Your task to perform on an android device: open a new tab in the chrome app Image 0: 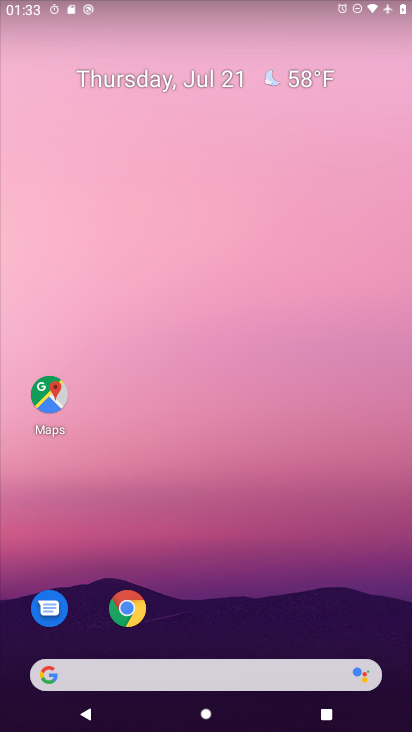
Step 0: press home button
Your task to perform on an android device: open a new tab in the chrome app Image 1: 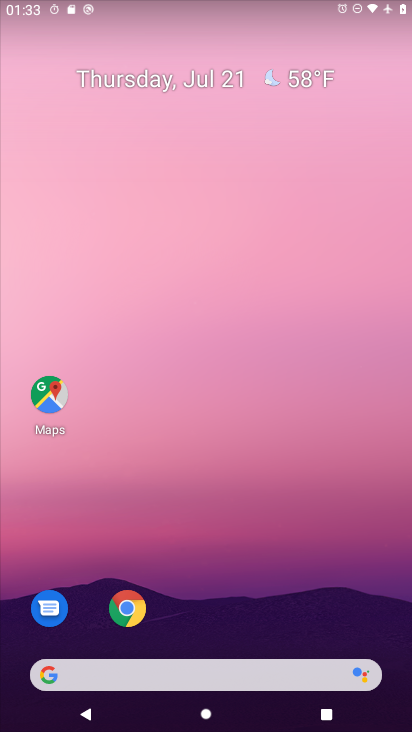
Step 1: drag from (225, 664) to (323, 113)
Your task to perform on an android device: open a new tab in the chrome app Image 2: 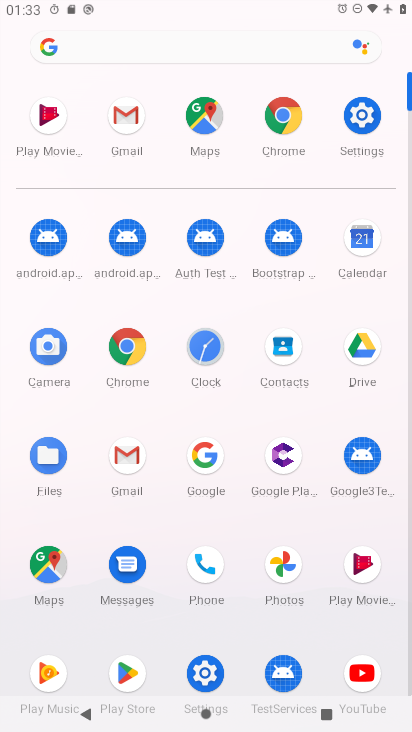
Step 2: click (273, 119)
Your task to perform on an android device: open a new tab in the chrome app Image 3: 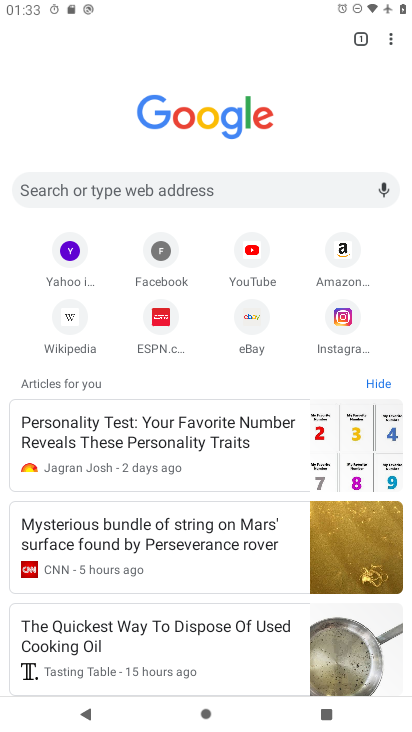
Step 3: click (364, 35)
Your task to perform on an android device: open a new tab in the chrome app Image 4: 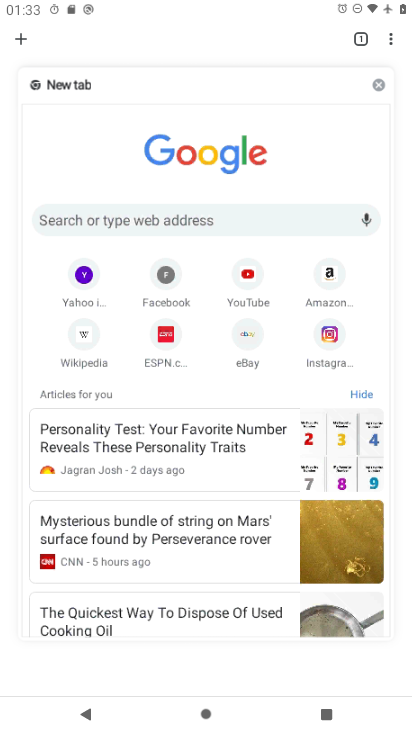
Step 4: click (17, 40)
Your task to perform on an android device: open a new tab in the chrome app Image 5: 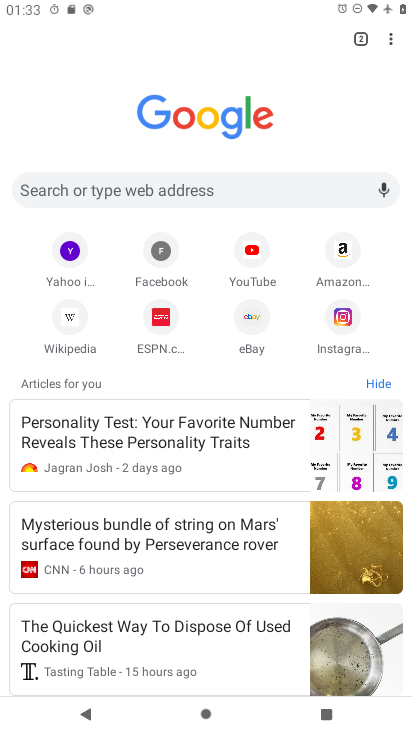
Step 5: task complete